Your task to perform on an android device: toggle airplane mode Image 0: 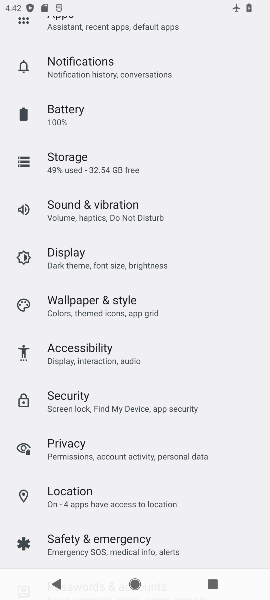
Step 0: drag from (239, 171) to (183, 512)
Your task to perform on an android device: toggle airplane mode Image 1: 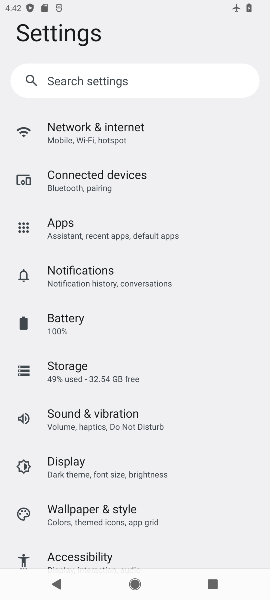
Step 1: click (110, 142)
Your task to perform on an android device: toggle airplane mode Image 2: 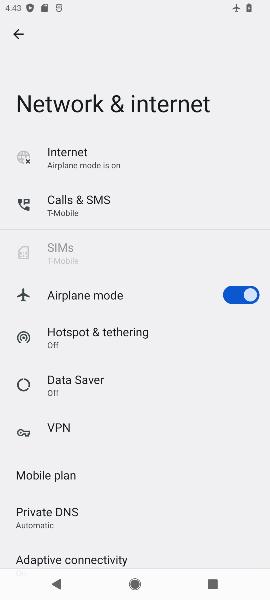
Step 2: click (227, 294)
Your task to perform on an android device: toggle airplane mode Image 3: 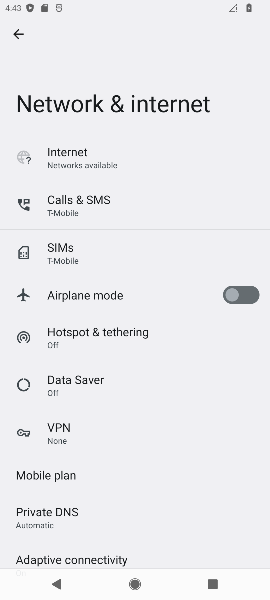
Step 3: task complete